Your task to perform on an android device: Open the phone app and click the voicemail tab. Image 0: 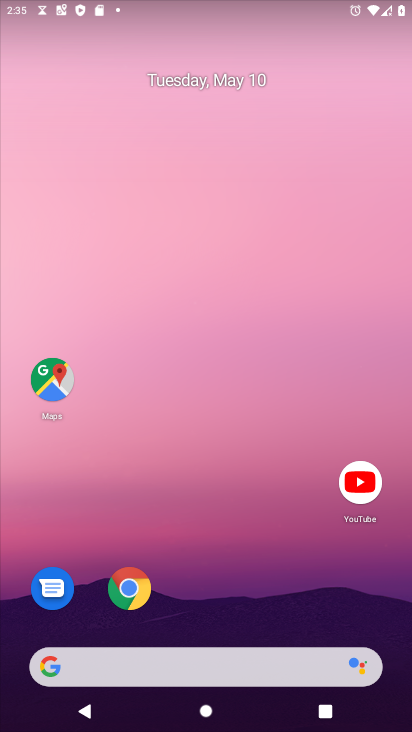
Step 0: drag from (254, 598) to (286, 310)
Your task to perform on an android device: Open the phone app and click the voicemail tab. Image 1: 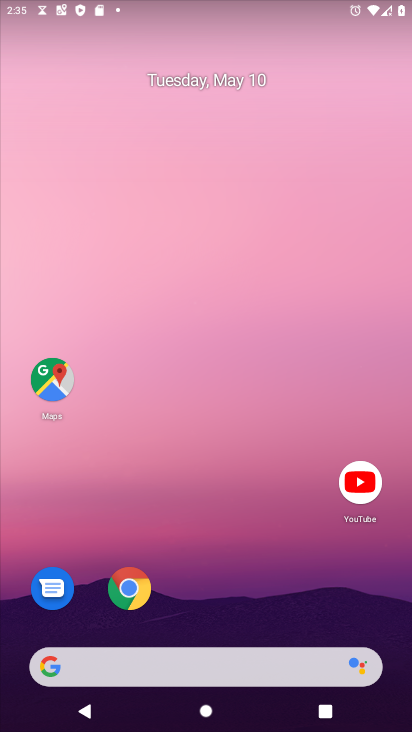
Step 1: drag from (233, 632) to (312, 183)
Your task to perform on an android device: Open the phone app and click the voicemail tab. Image 2: 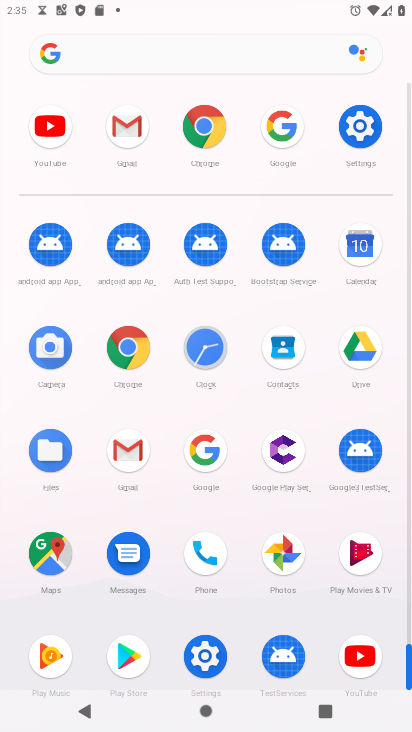
Step 2: click (205, 545)
Your task to perform on an android device: Open the phone app and click the voicemail tab. Image 3: 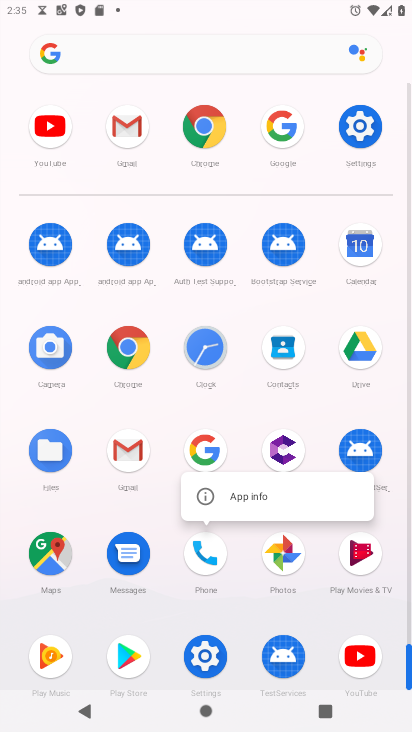
Step 3: click (204, 545)
Your task to perform on an android device: Open the phone app and click the voicemail tab. Image 4: 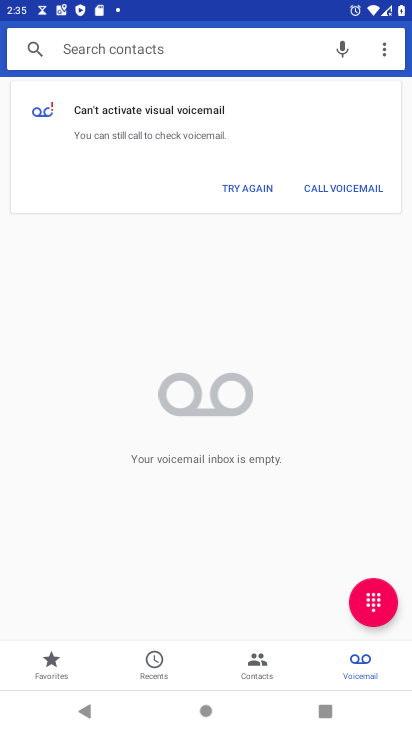
Step 4: click (349, 665)
Your task to perform on an android device: Open the phone app and click the voicemail tab. Image 5: 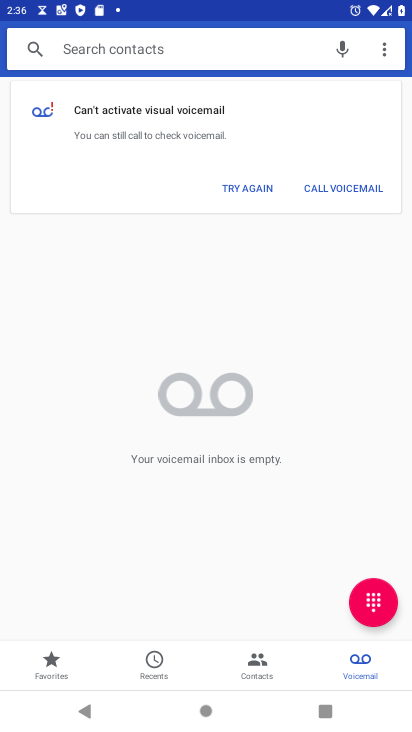
Step 5: task complete